Your task to perform on an android device: Check the weather Image 0: 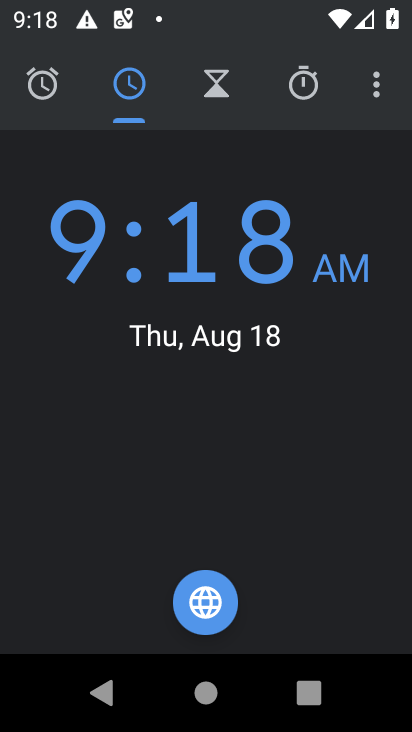
Step 0: press home button
Your task to perform on an android device: Check the weather Image 1: 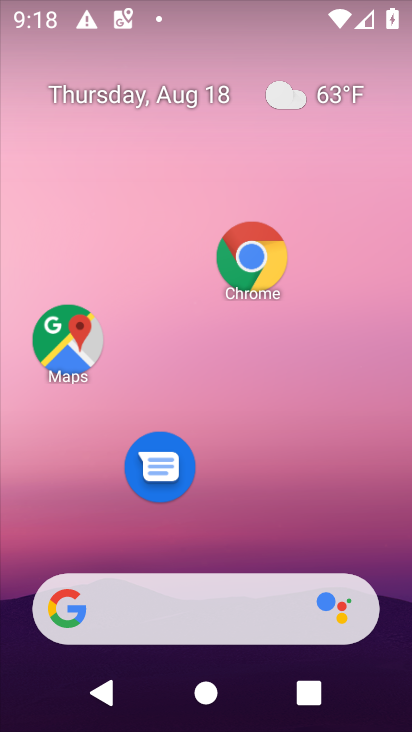
Step 1: task complete